Your task to perform on an android device: turn off notifications settings in the gmail app Image 0: 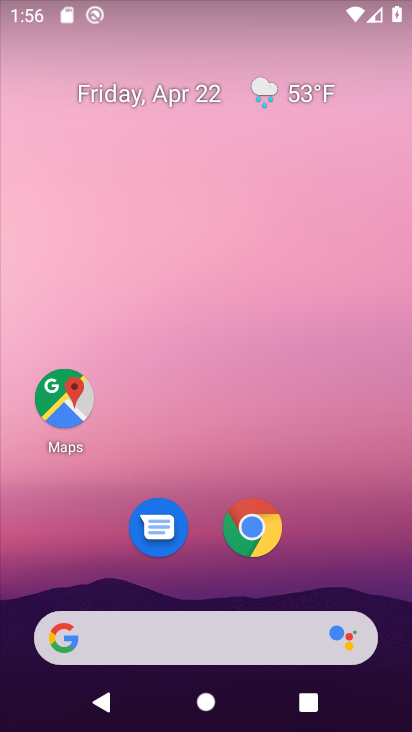
Step 0: drag from (377, 520) to (331, 64)
Your task to perform on an android device: turn off notifications settings in the gmail app Image 1: 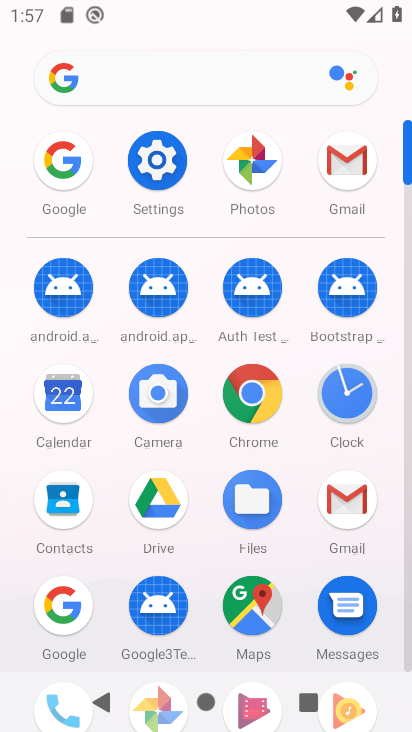
Step 1: click (349, 172)
Your task to perform on an android device: turn off notifications settings in the gmail app Image 2: 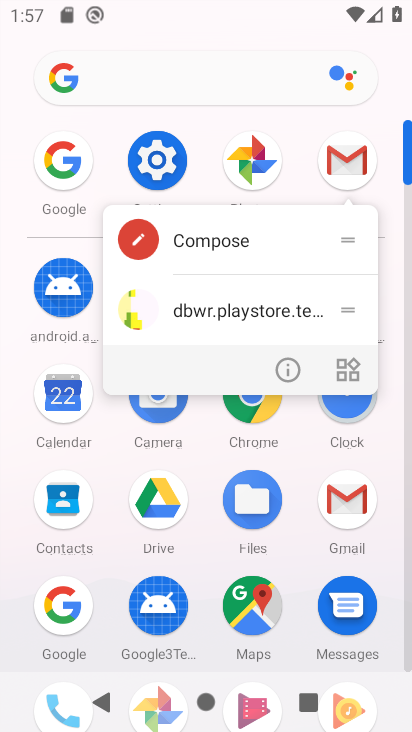
Step 2: click (293, 369)
Your task to perform on an android device: turn off notifications settings in the gmail app Image 3: 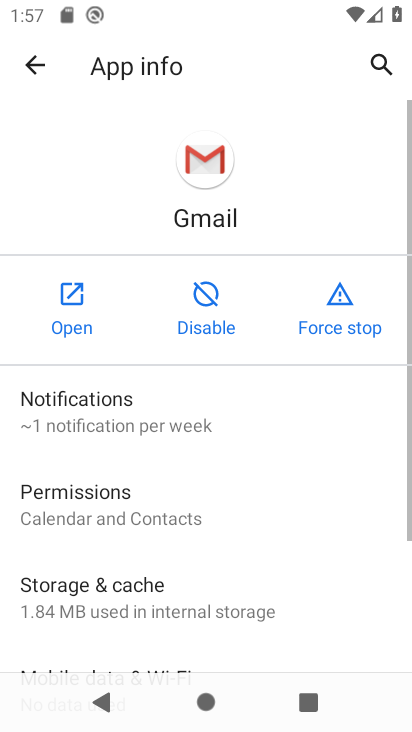
Step 3: click (259, 398)
Your task to perform on an android device: turn off notifications settings in the gmail app Image 4: 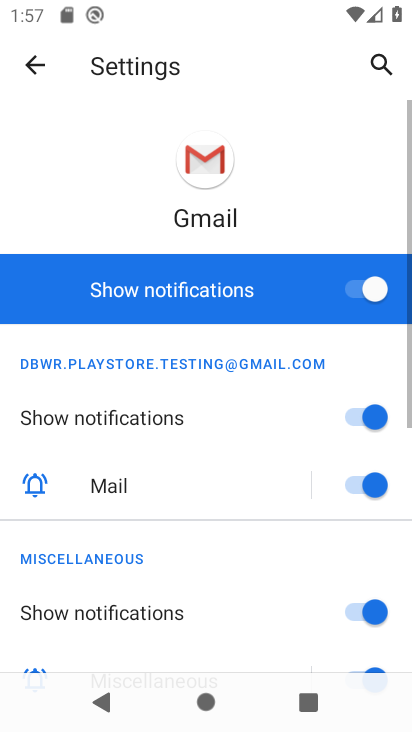
Step 4: click (379, 287)
Your task to perform on an android device: turn off notifications settings in the gmail app Image 5: 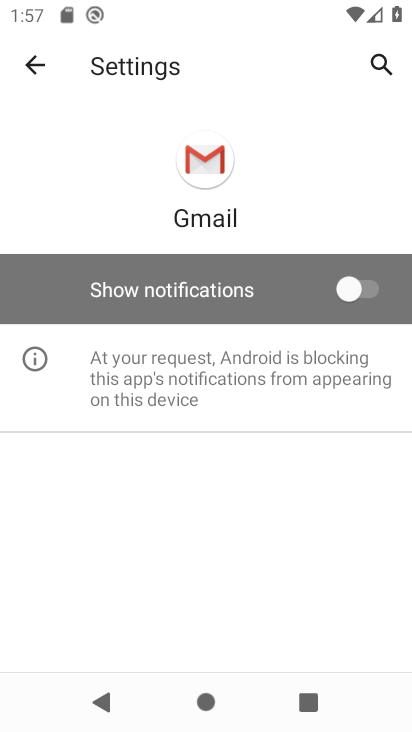
Step 5: task complete